Your task to perform on an android device: all mails in gmail Image 0: 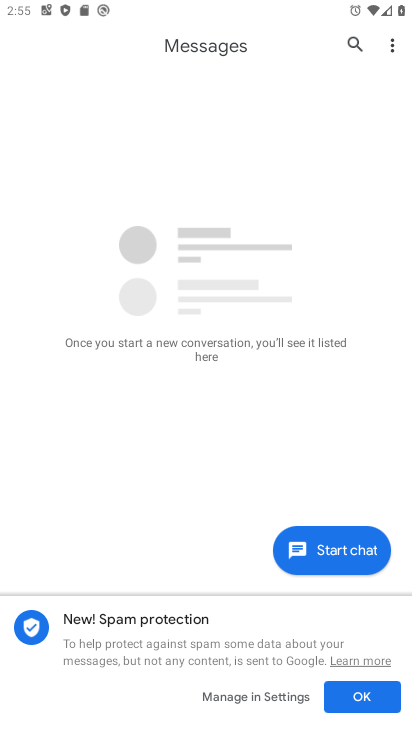
Step 0: press back button
Your task to perform on an android device: all mails in gmail Image 1: 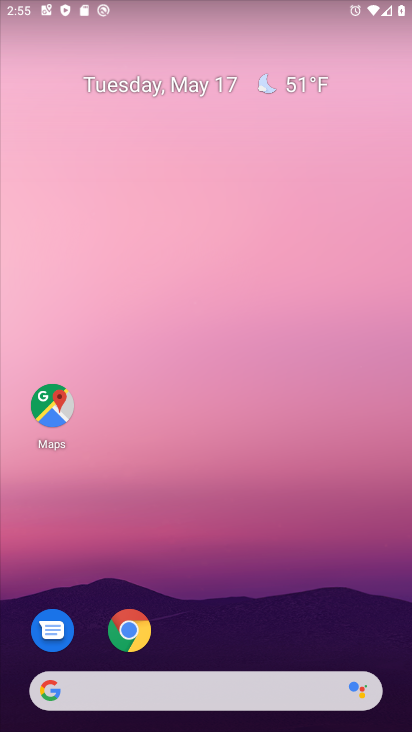
Step 1: drag from (269, 555) to (348, 0)
Your task to perform on an android device: all mails in gmail Image 2: 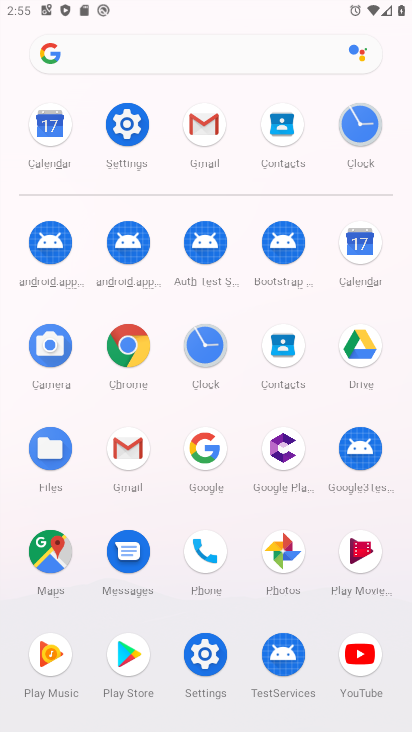
Step 2: click (201, 128)
Your task to perform on an android device: all mails in gmail Image 3: 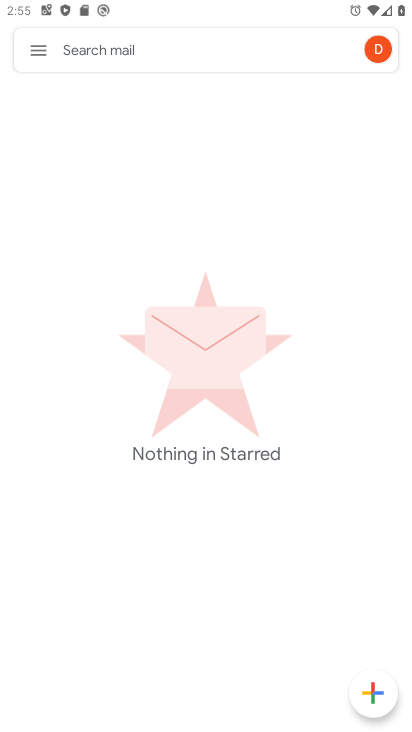
Step 3: click (34, 43)
Your task to perform on an android device: all mails in gmail Image 4: 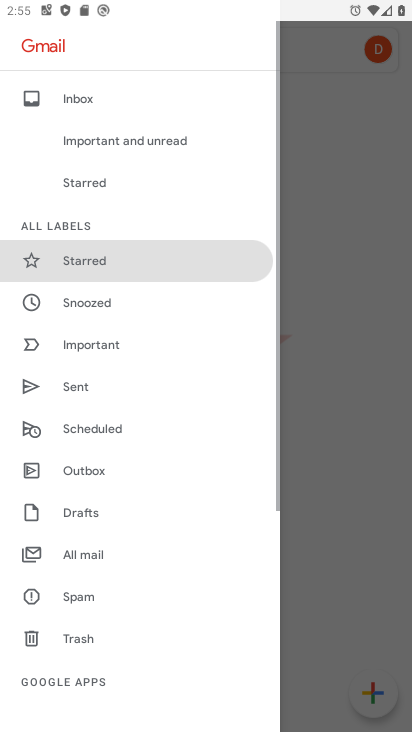
Step 4: click (94, 559)
Your task to perform on an android device: all mails in gmail Image 5: 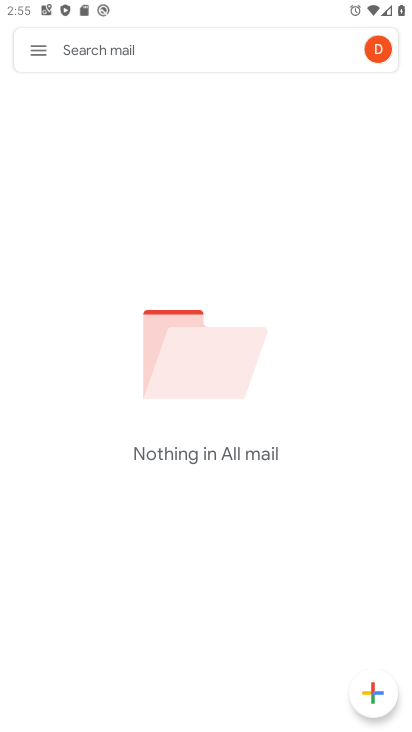
Step 5: task complete